Your task to perform on an android device: change the clock display to show seconds Image 0: 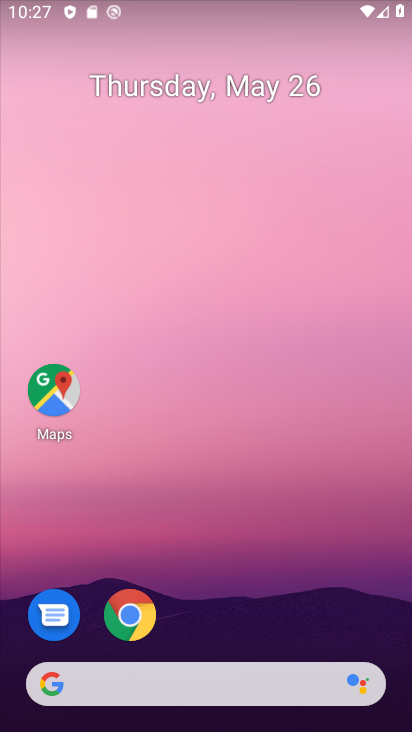
Step 0: drag from (353, 592) to (354, 308)
Your task to perform on an android device: change the clock display to show seconds Image 1: 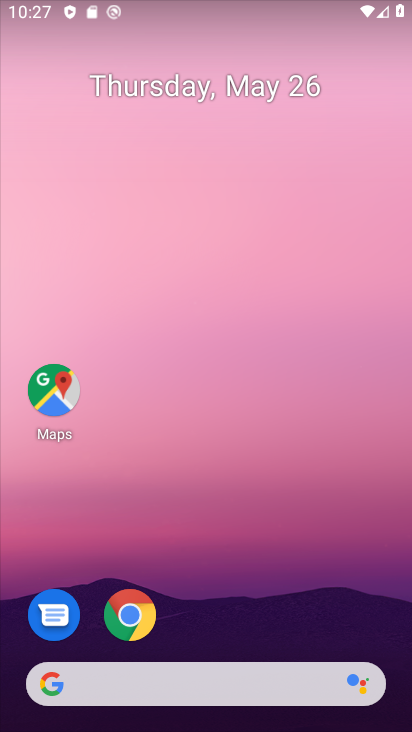
Step 1: drag from (327, 633) to (317, 310)
Your task to perform on an android device: change the clock display to show seconds Image 2: 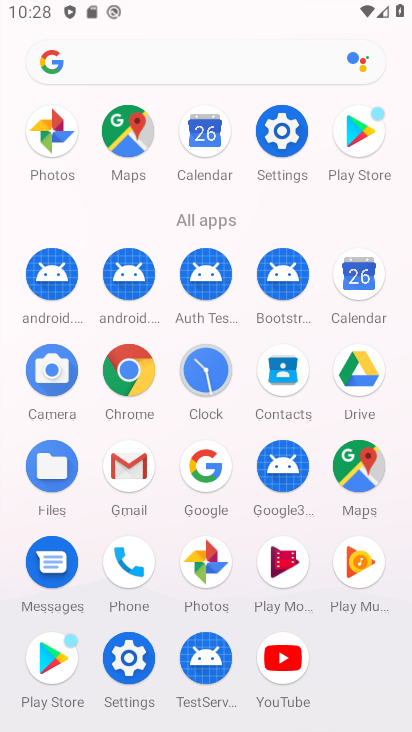
Step 2: click (204, 353)
Your task to perform on an android device: change the clock display to show seconds Image 3: 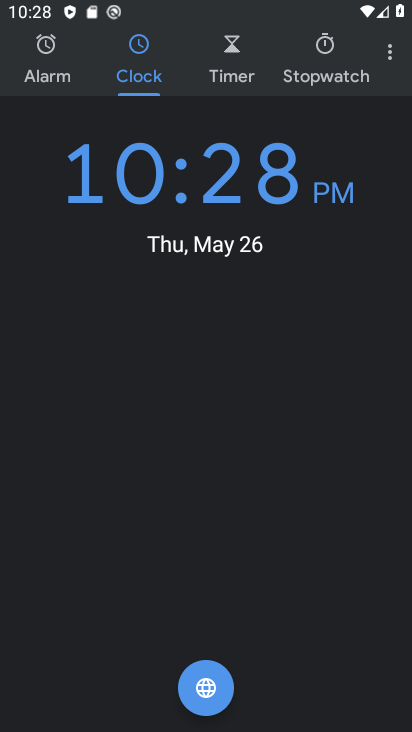
Step 3: click (396, 75)
Your task to perform on an android device: change the clock display to show seconds Image 4: 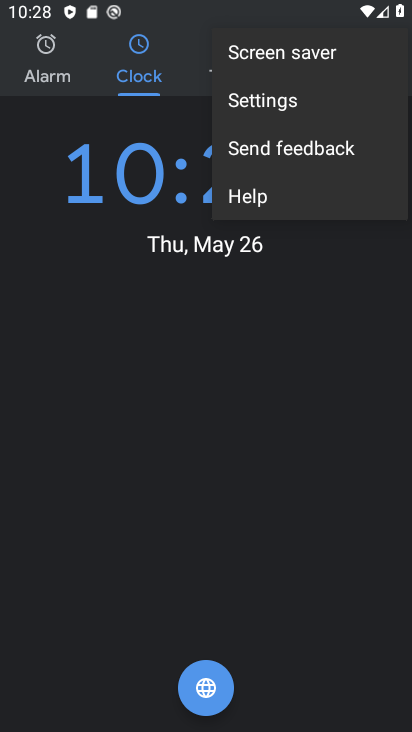
Step 4: click (328, 117)
Your task to perform on an android device: change the clock display to show seconds Image 5: 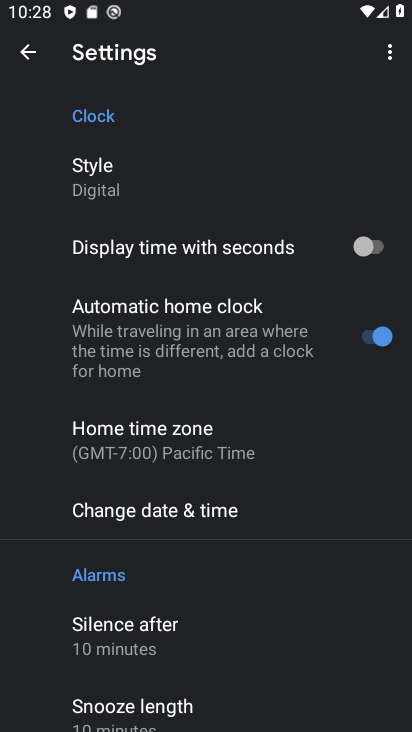
Step 5: click (362, 241)
Your task to perform on an android device: change the clock display to show seconds Image 6: 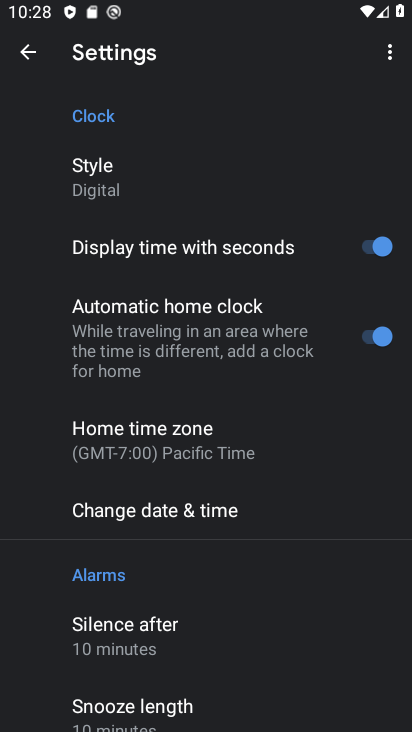
Step 6: task complete